Your task to perform on an android device: Search for logitech g903 on bestbuy, select the first entry, and add it to the cart. Image 0: 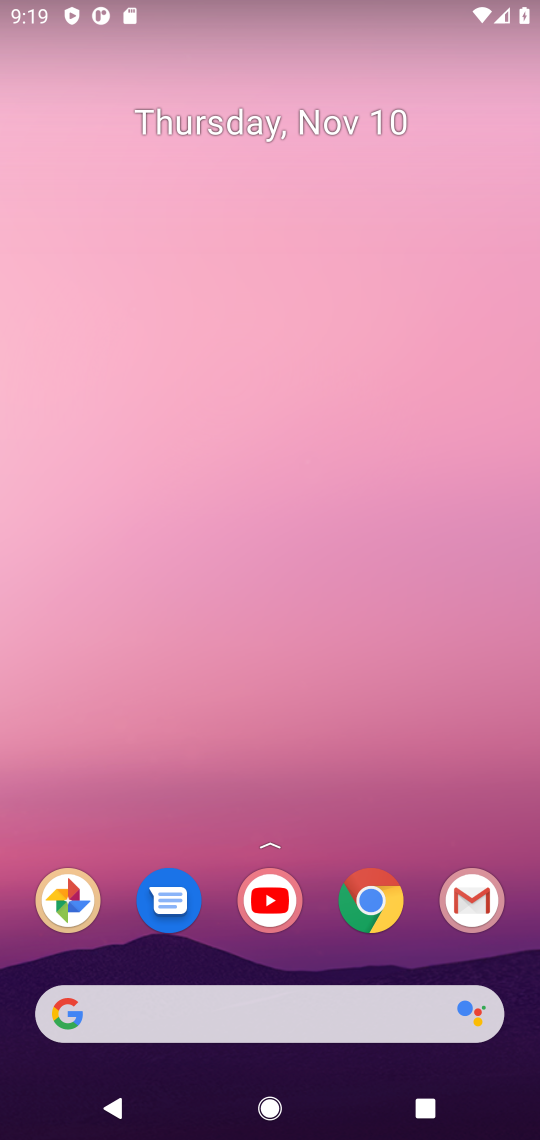
Step 0: click (381, 903)
Your task to perform on an android device: Search for logitech g903 on bestbuy, select the first entry, and add it to the cart. Image 1: 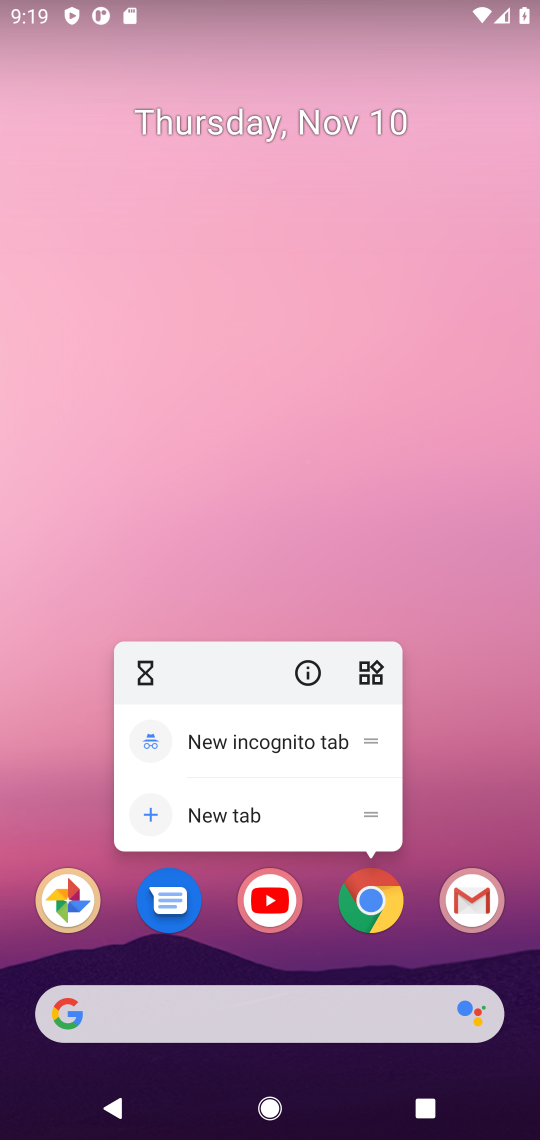
Step 1: click (364, 909)
Your task to perform on an android device: Search for logitech g903 on bestbuy, select the first entry, and add it to the cart. Image 2: 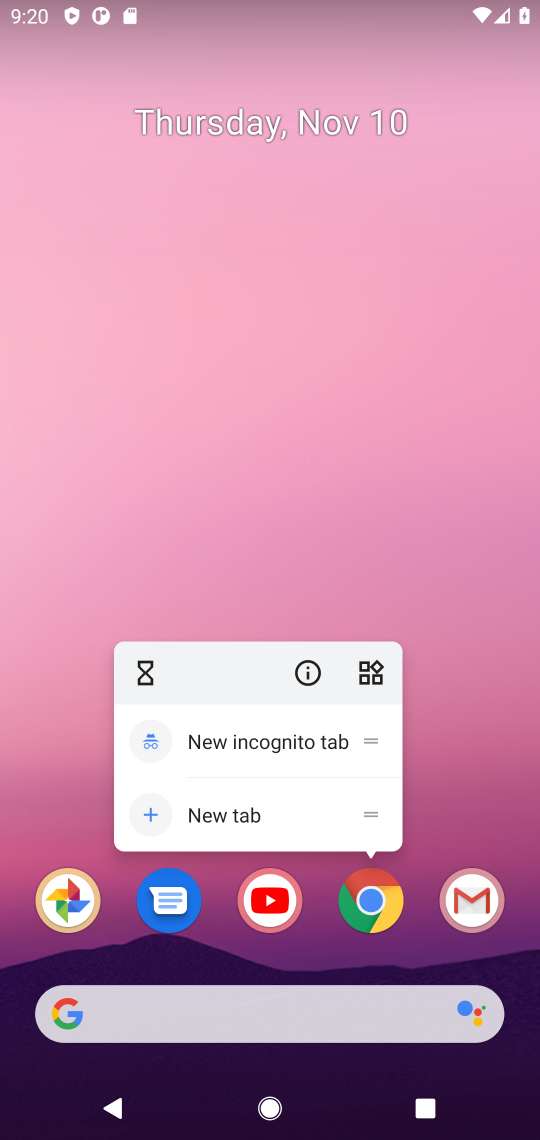
Step 2: click (364, 910)
Your task to perform on an android device: Search for logitech g903 on bestbuy, select the first entry, and add it to the cart. Image 3: 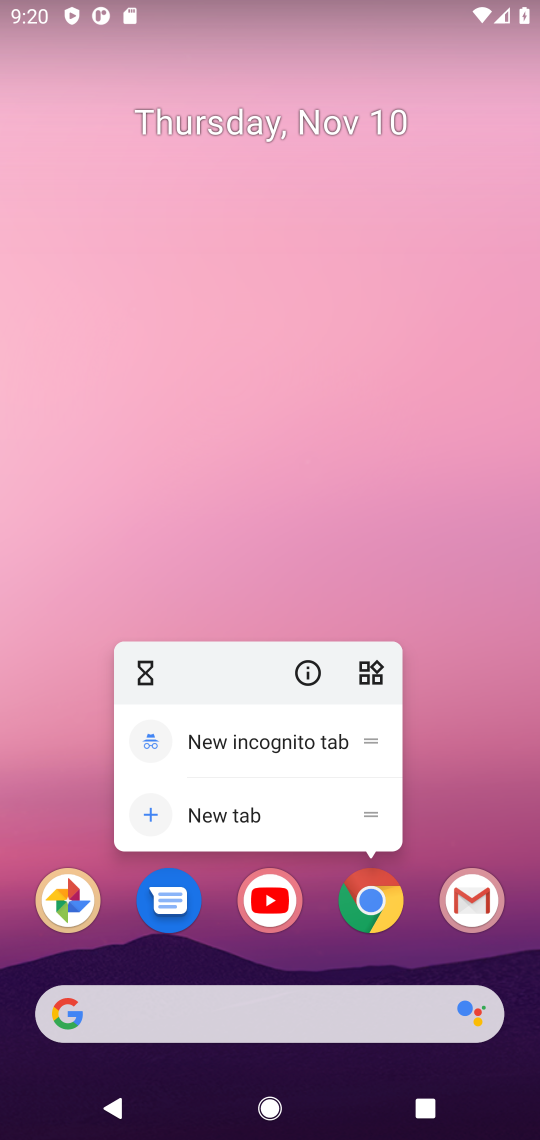
Step 3: click (364, 912)
Your task to perform on an android device: Search for logitech g903 on bestbuy, select the first entry, and add it to the cart. Image 4: 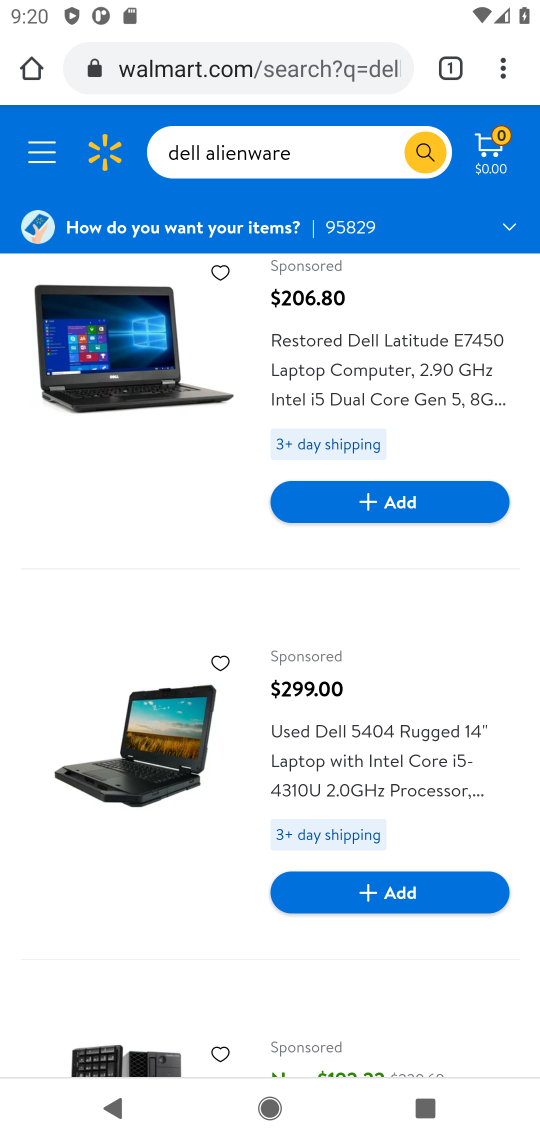
Step 4: click (289, 69)
Your task to perform on an android device: Search for logitech g903 on bestbuy, select the first entry, and add it to the cart. Image 5: 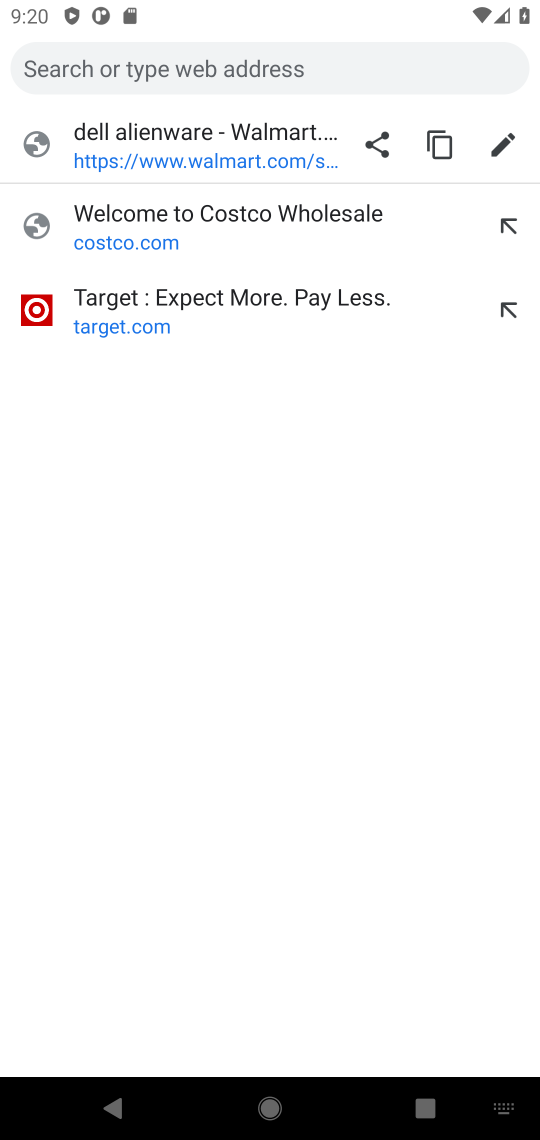
Step 5: type "bestbuy"
Your task to perform on an android device: Search for logitech g903 on bestbuy, select the first entry, and add it to the cart. Image 6: 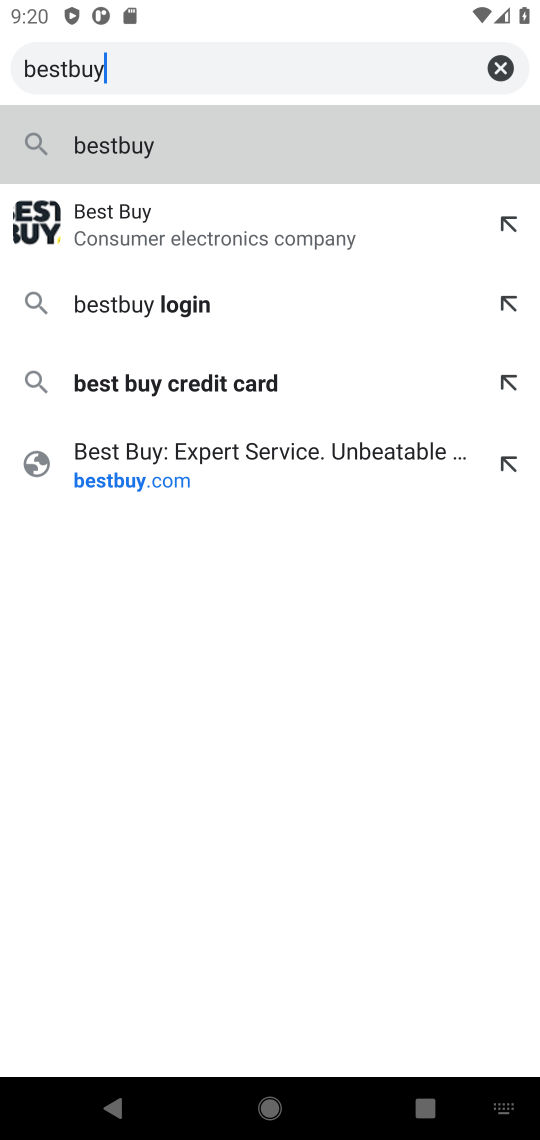
Step 6: press enter
Your task to perform on an android device: Search for logitech g903 on bestbuy, select the first entry, and add it to the cart. Image 7: 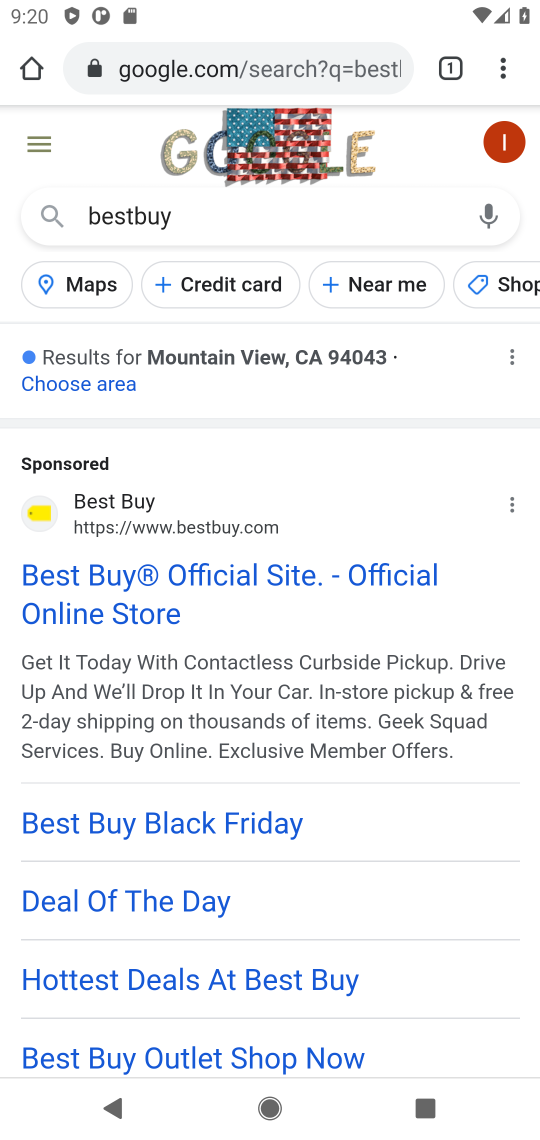
Step 7: drag from (224, 1006) to (357, 428)
Your task to perform on an android device: Search for logitech g903 on bestbuy, select the first entry, and add it to the cart. Image 8: 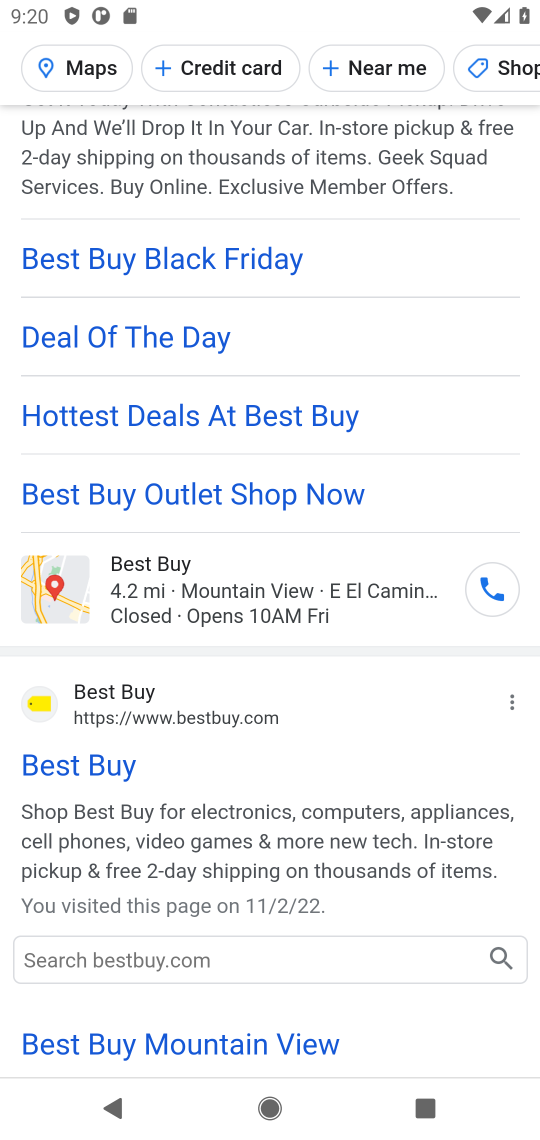
Step 8: click (111, 772)
Your task to perform on an android device: Search for logitech g903 on bestbuy, select the first entry, and add it to the cart. Image 9: 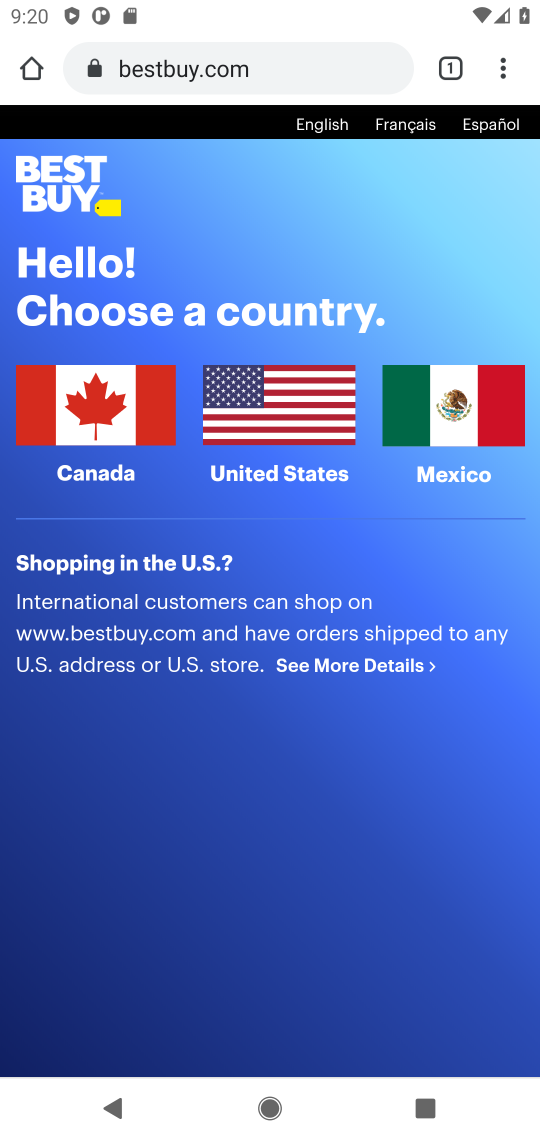
Step 9: click (76, 427)
Your task to perform on an android device: Search for logitech g903 on bestbuy, select the first entry, and add it to the cart. Image 10: 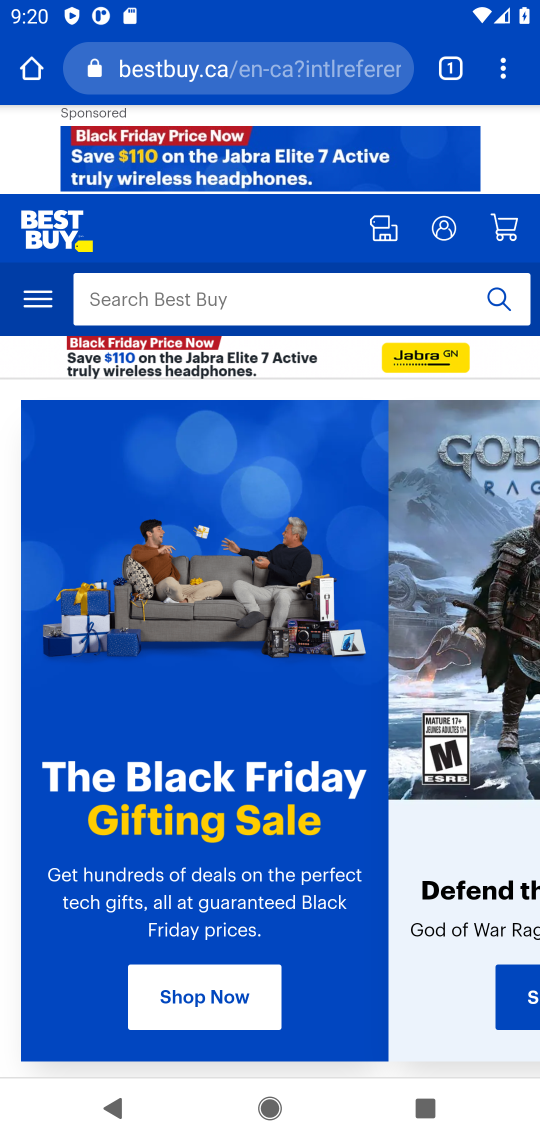
Step 10: click (267, 299)
Your task to perform on an android device: Search for logitech g903 on bestbuy, select the first entry, and add it to the cart. Image 11: 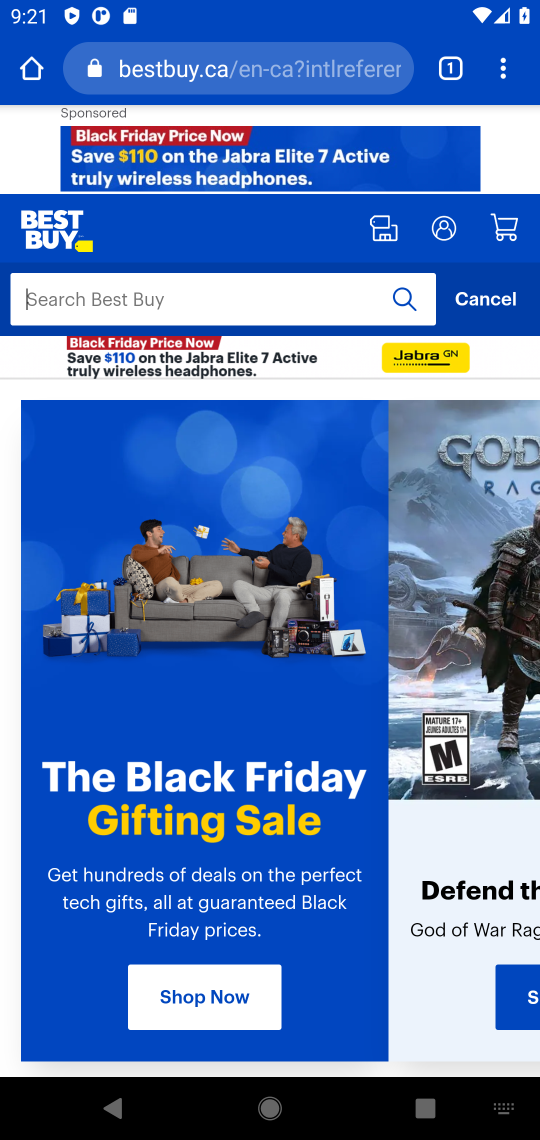
Step 11: type "logitech g903"
Your task to perform on an android device: Search for logitech g903 on bestbuy, select the first entry, and add it to the cart. Image 12: 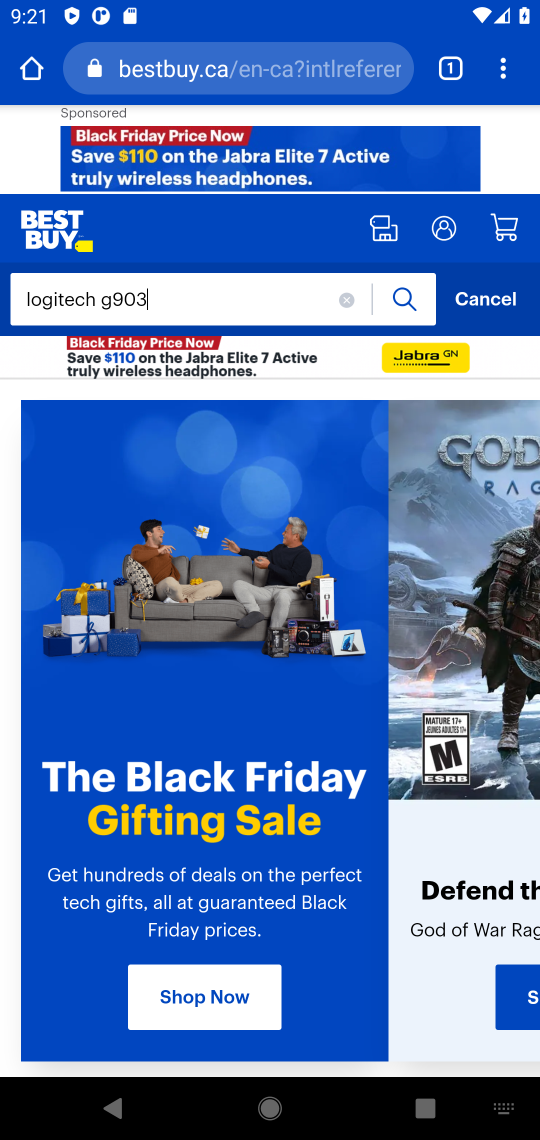
Step 12: press enter
Your task to perform on an android device: Search for logitech g903 on bestbuy, select the first entry, and add it to the cart. Image 13: 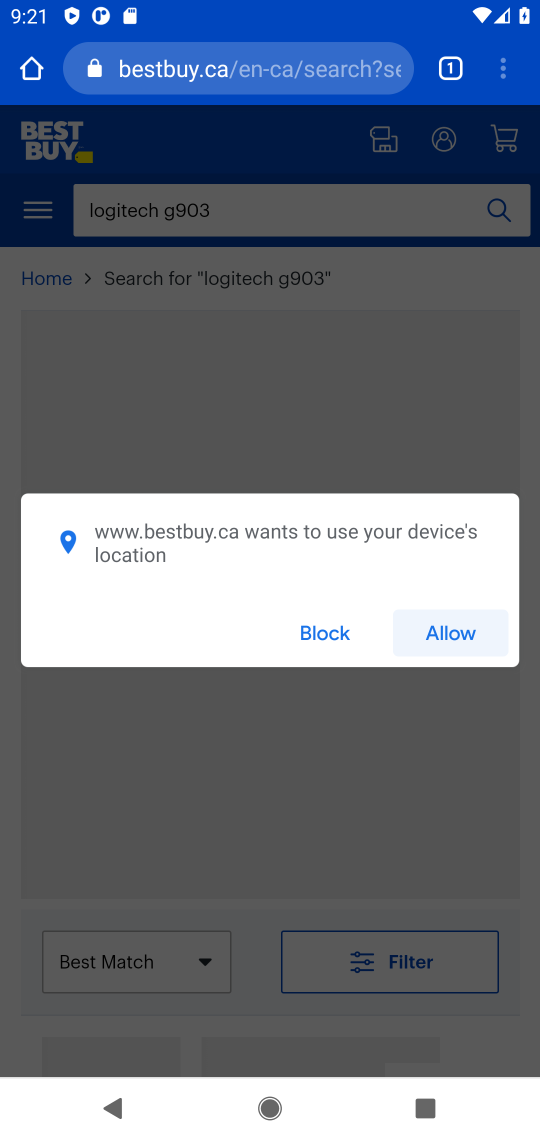
Step 13: click (478, 639)
Your task to perform on an android device: Search for logitech g903 on bestbuy, select the first entry, and add it to the cart. Image 14: 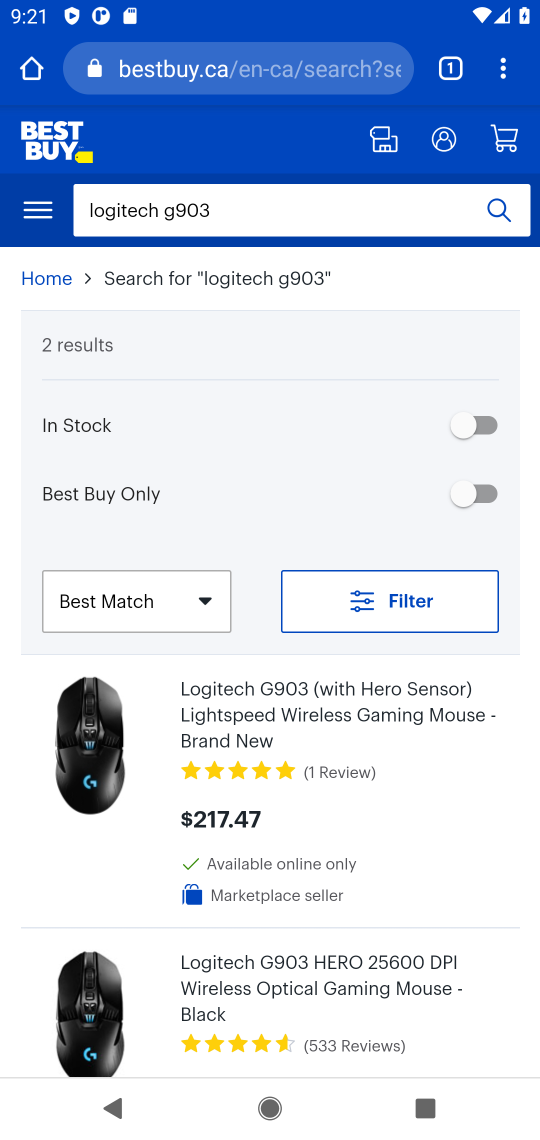
Step 14: click (322, 730)
Your task to perform on an android device: Search for logitech g903 on bestbuy, select the first entry, and add it to the cart. Image 15: 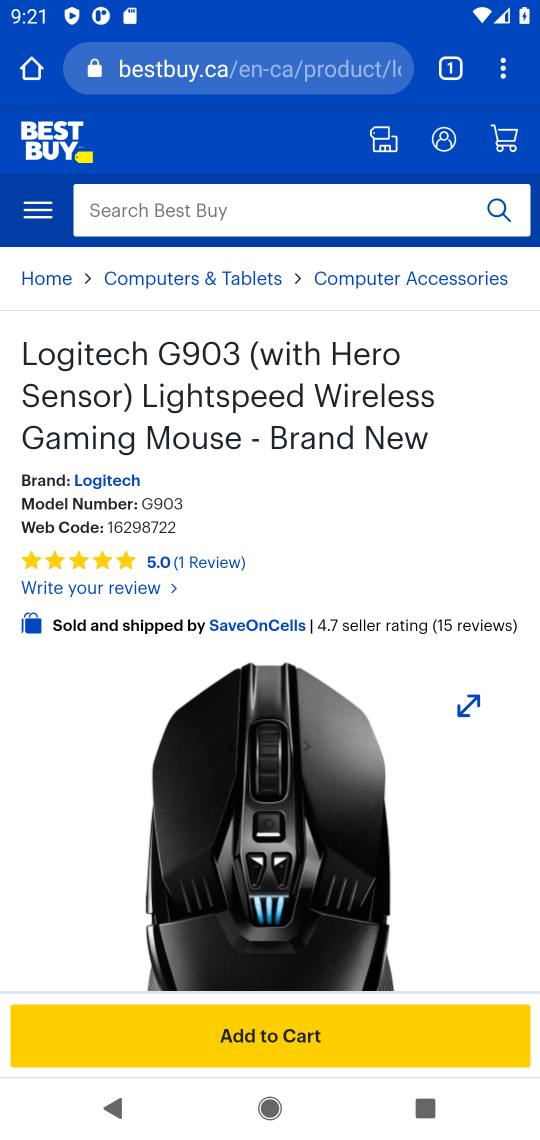
Step 15: click (285, 1027)
Your task to perform on an android device: Search for logitech g903 on bestbuy, select the first entry, and add it to the cart. Image 16: 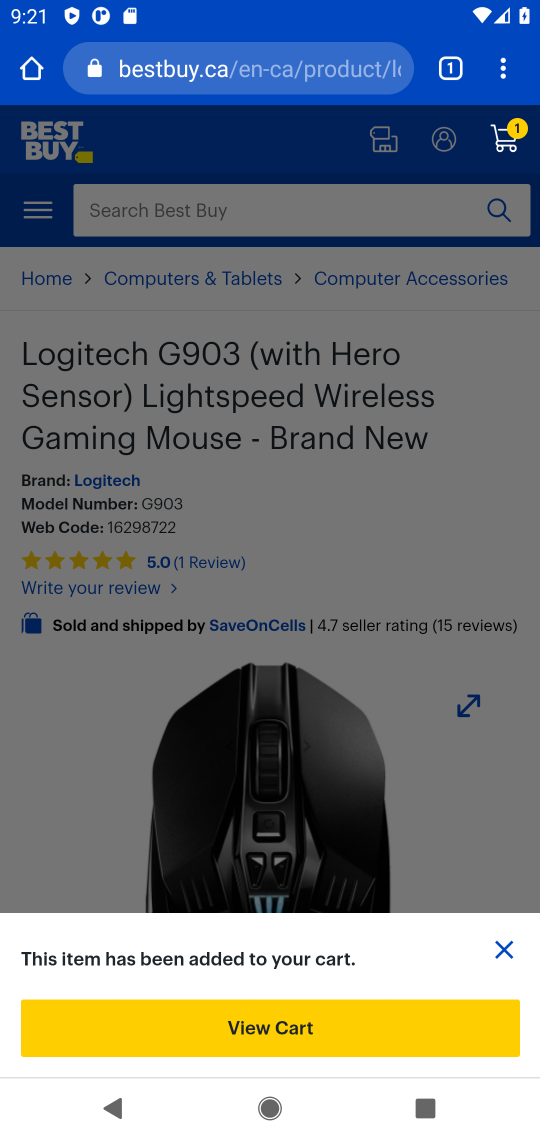
Step 16: click (277, 1032)
Your task to perform on an android device: Search for logitech g903 on bestbuy, select the first entry, and add it to the cart. Image 17: 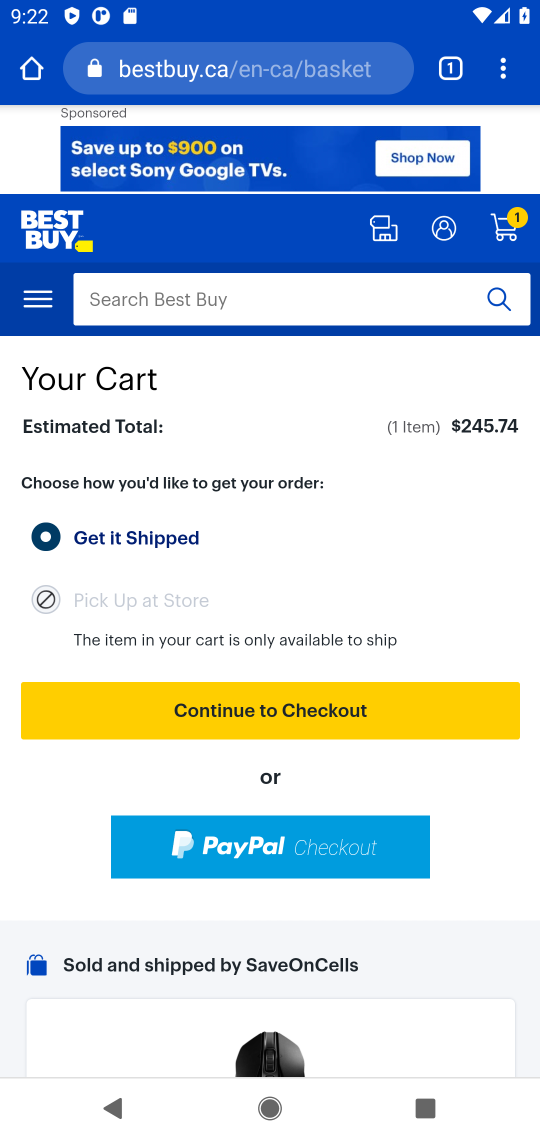
Step 17: task complete